Your task to perform on an android device: toggle pop-ups in chrome Image 0: 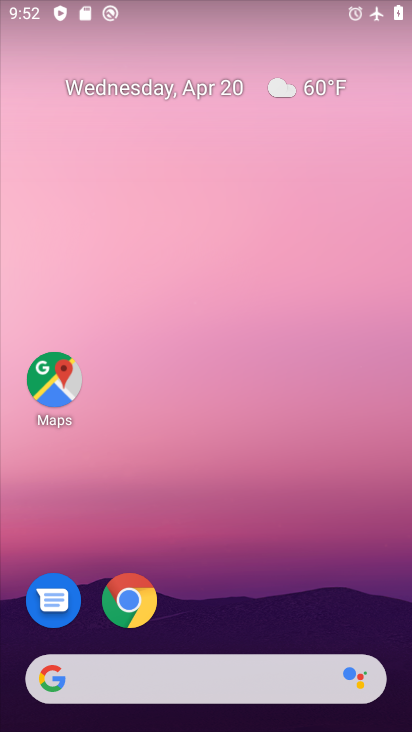
Step 0: drag from (213, 644) to (394, 24)
Your task to perform on an android device: toggle pop-ups in chrome Image 1: 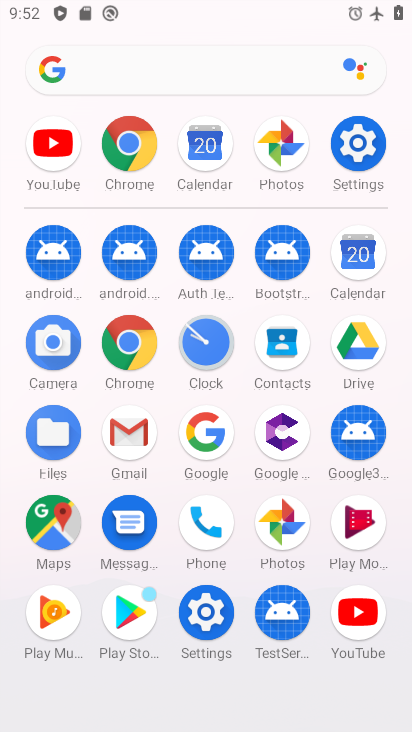
Step 1: click (125, 144)
Your task to perform on an android device: toggle pop-ups in chrome Image 2: 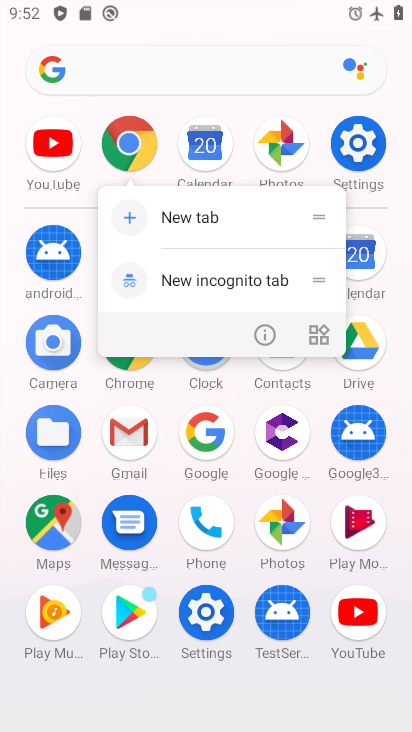
Step 2: click (125, 144)
Your task to perform on an android device: toggle pop-ups in chrome Image 3: 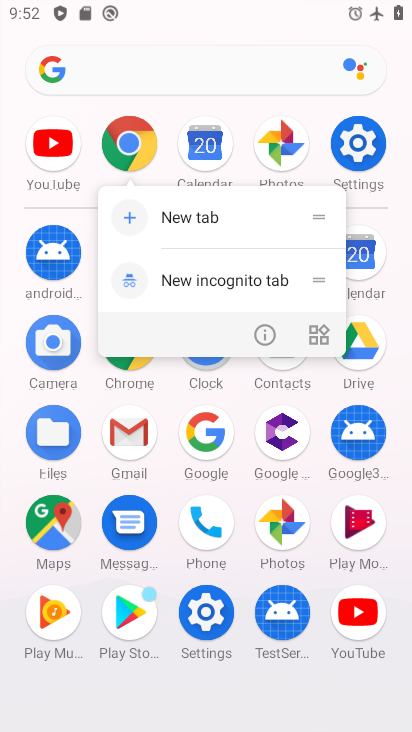
Step 3: click (125, 144)
Your task to perform on an android device: toggle pop-ups in chrome Image 4: 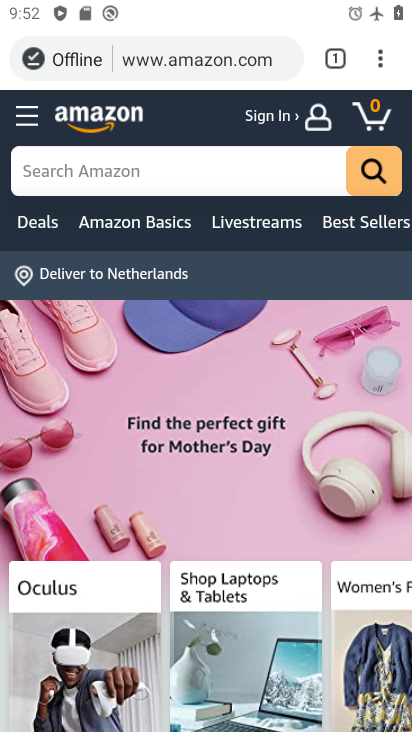
Step 4: drag from (380, 68) to (205, 624)
Your task to perform on an android device: toggle pop-ups in chrome Image 5: 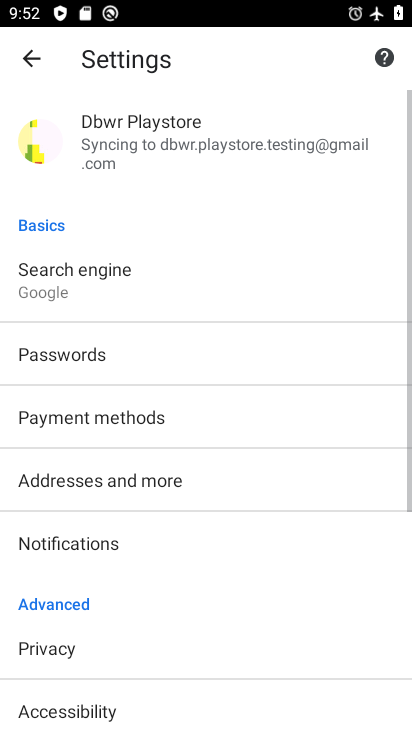
Step 5: drag from (191, 625) to (138, 196)
Your task to perform on an android device: toggle pop-ups in chrome Image 6: 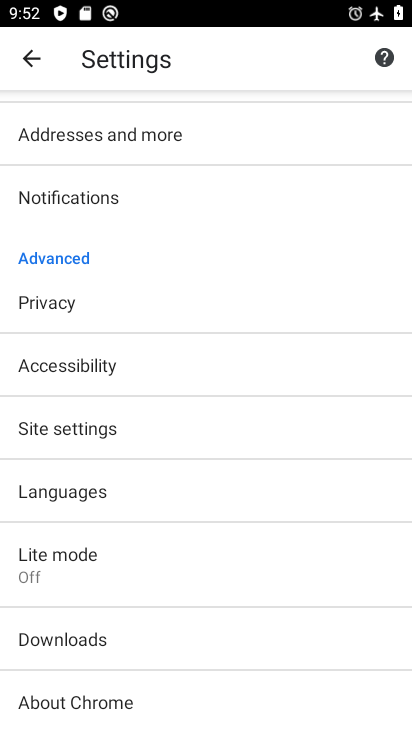
Step 6: click (61, 433)
Your task to perform on an android device: toggle pop-ups in chrome Image 7: 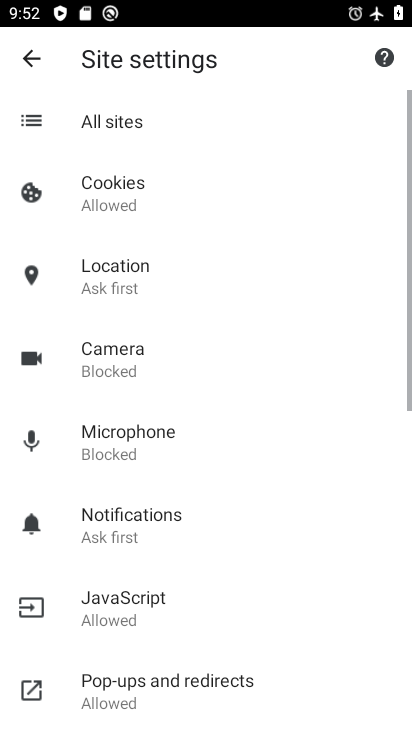
Step 7: drag from (168, 643) to (159, 428)
Your task to perform on an android device: toggle pop-ups in chrome Image 8: 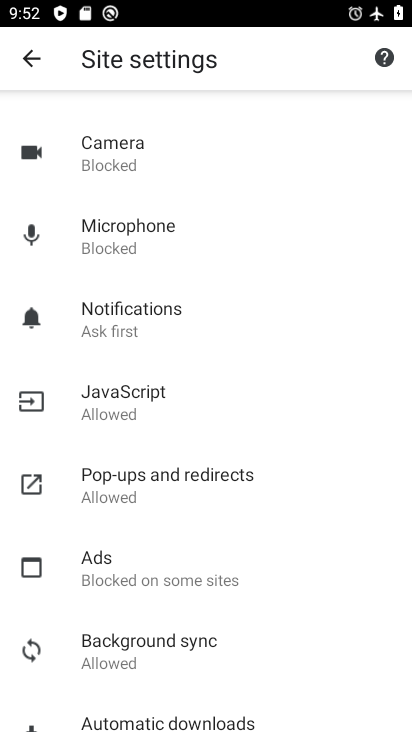
Step 8: click (123, 493)
Your task to perform on an android device: toggle pop-ups in chrome Image 9: 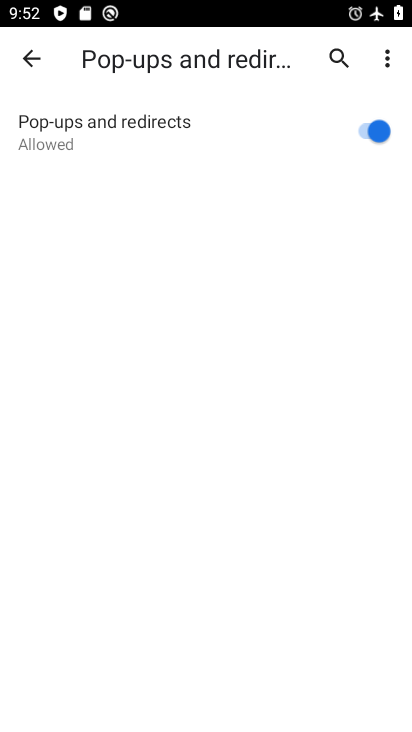
Step 9: click (366, 133)
Your task to perform on an android device: toggle pop-ups in chrome Image 10: 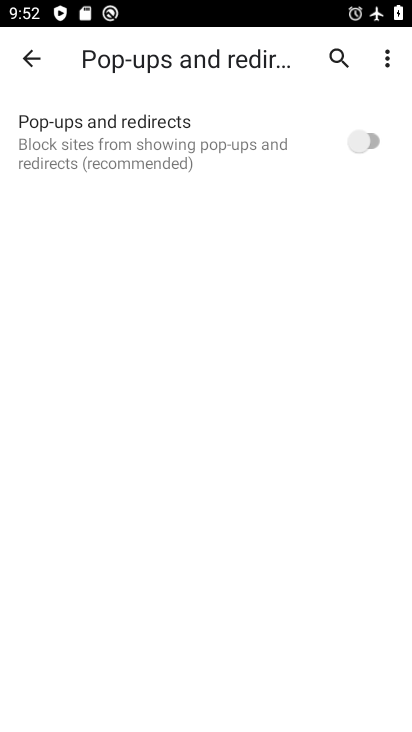
Step 10: task complete